Your task to perform on an android device: change the upload size in google photos Image 0: 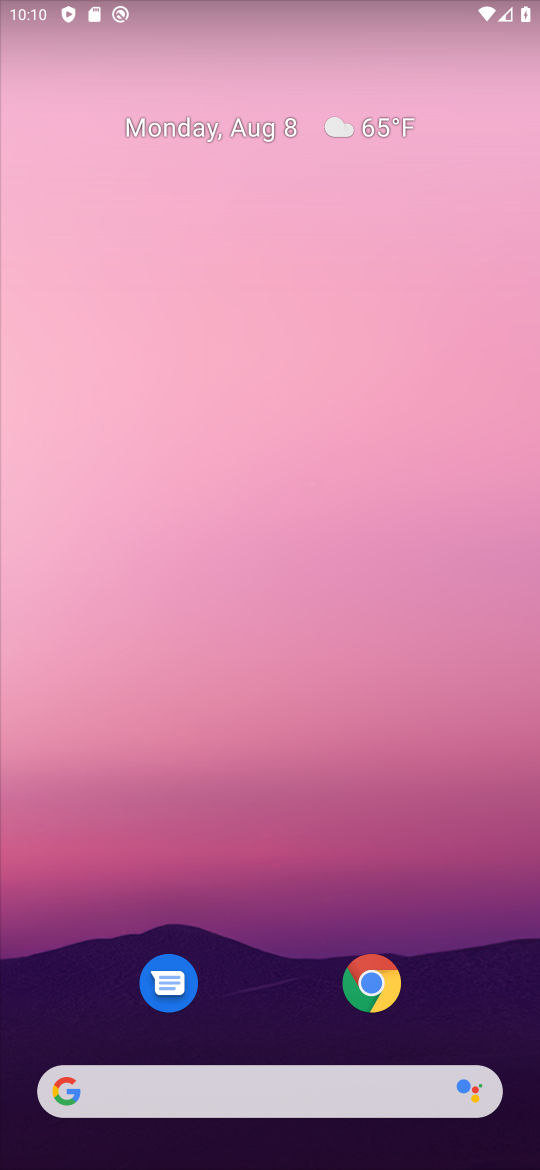
Step 0: drag from (240, 1047) to (270, 82)
Your task to perform on an android device: change the upload size in google photos Image 1: 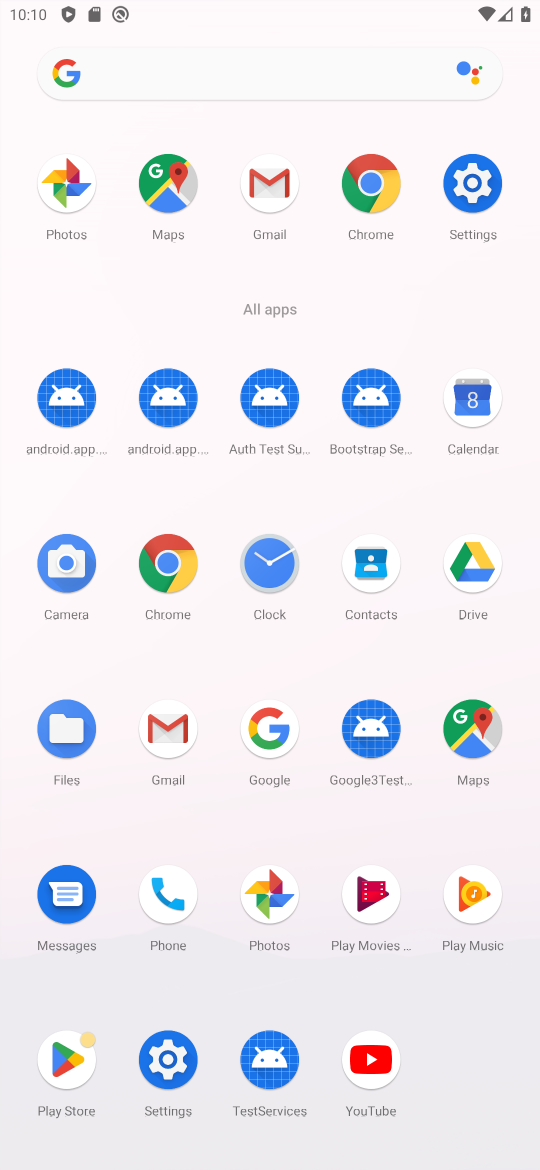
Step 1: click (269, 890)
Your task to perform on an android device: change the upload size in google photos Image 2: 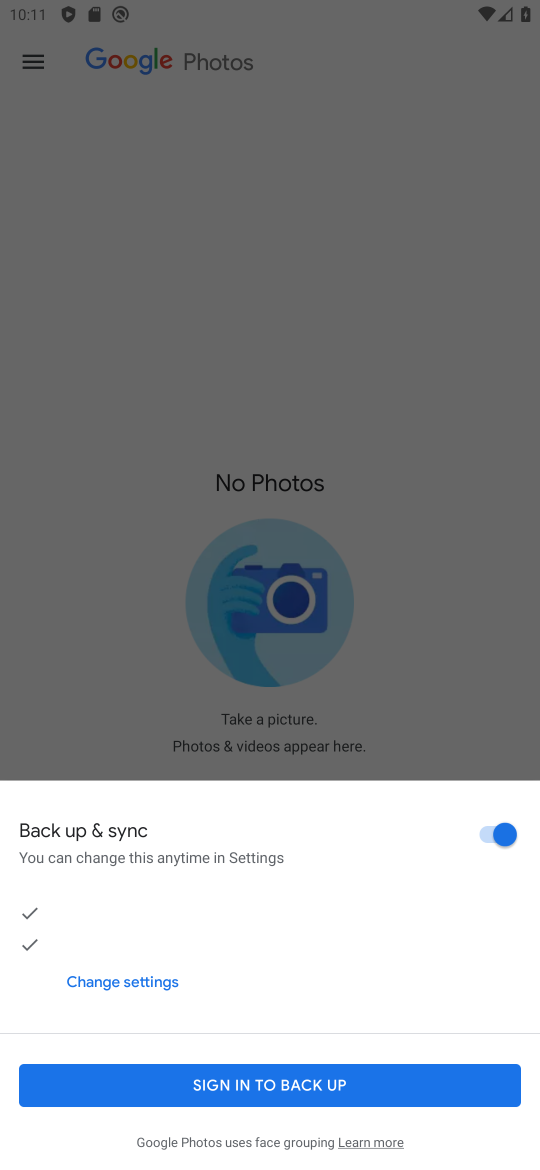
Step 2: click (499, 846)
Your task to perform on an android device: change the upload size in google photos Image 3: 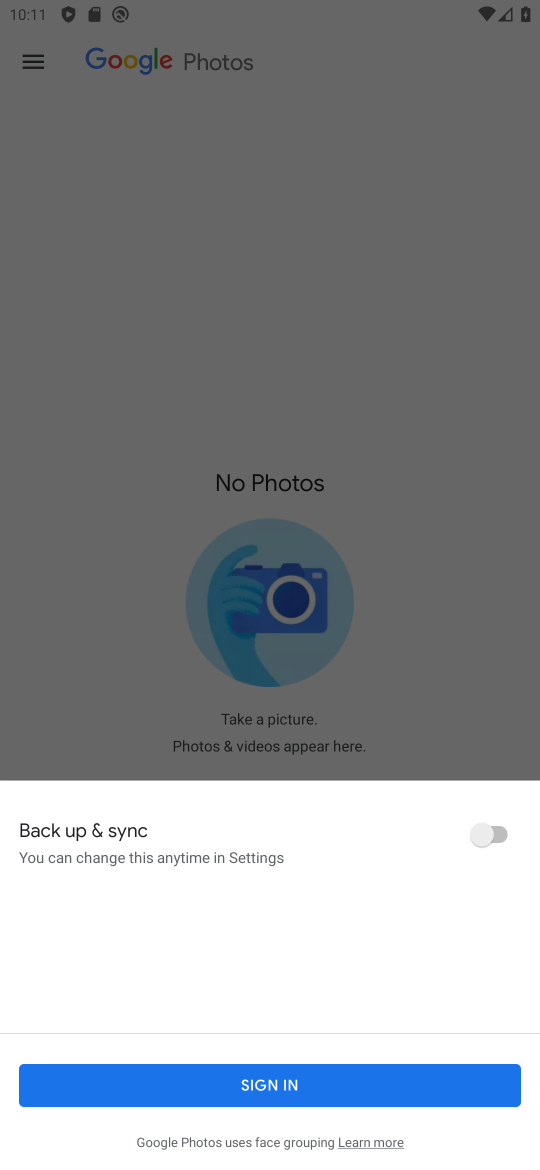
Step 3: click (456, 720)
Your task to perform on an android device: change the upload size in google photos Image 4: 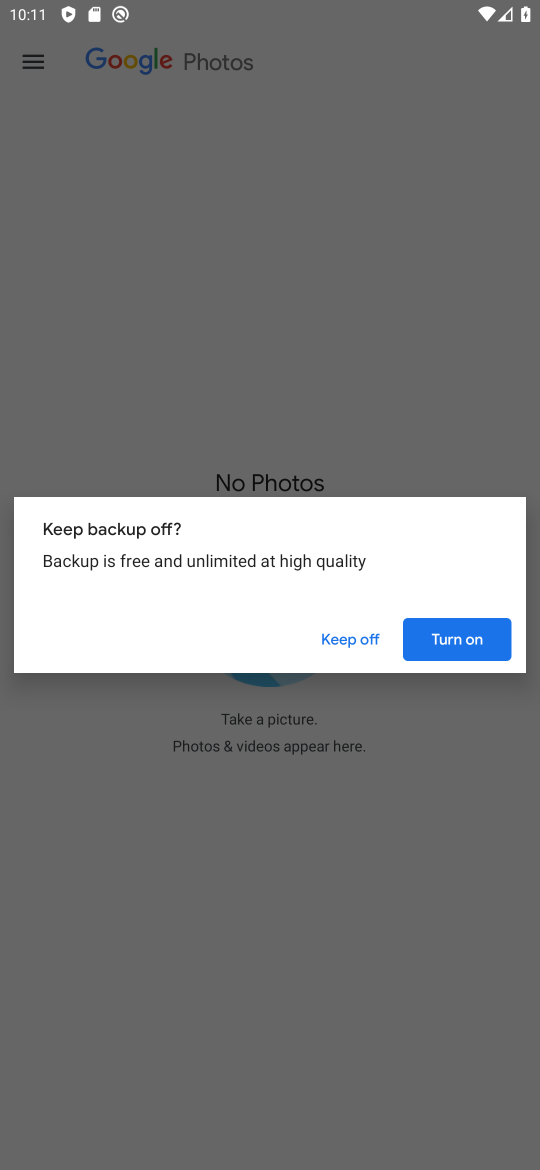
Step 4: click (365, 635)
Your task to perform on an android device: change the upload size in google photos Image 5: 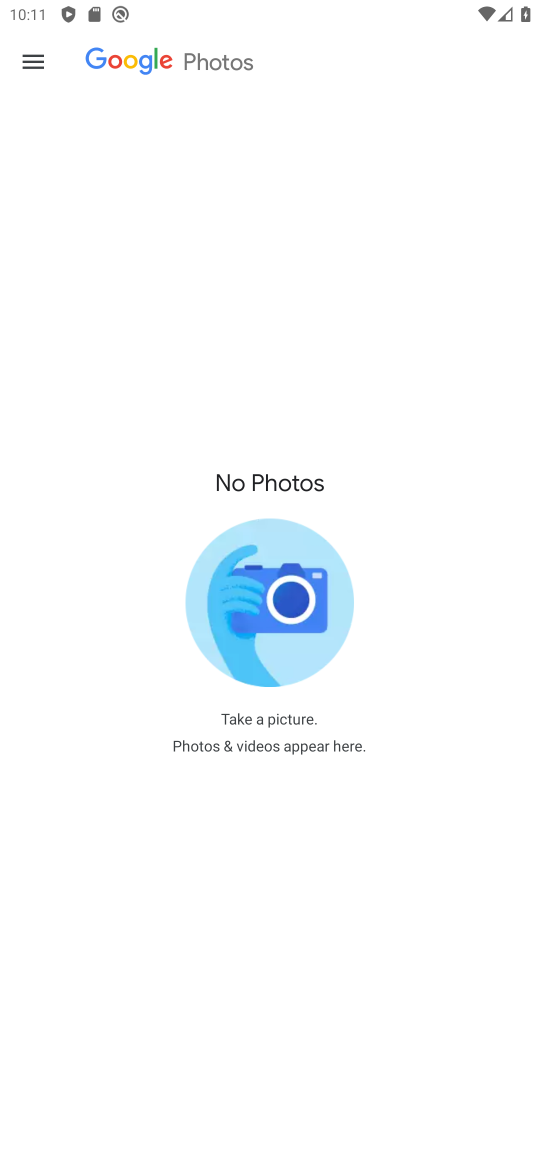
Step 5: click (19, 57)
Your task to perform on an android device: change the upload size in google photos Image 6: 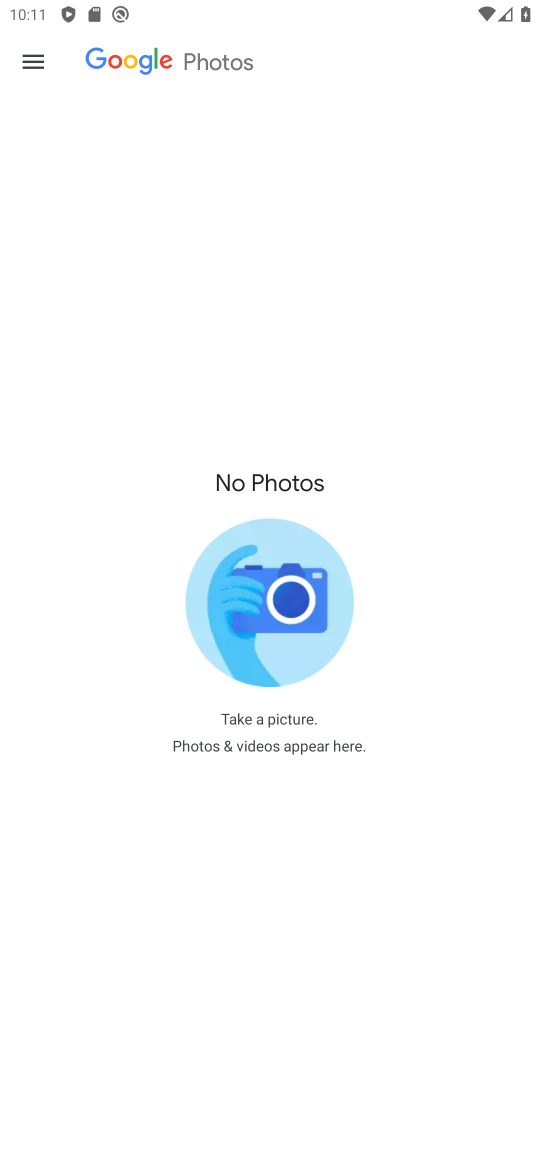
Step 6: click (29, 61)
Your task to perform on an android device: change the upload size in google photos Image 7: 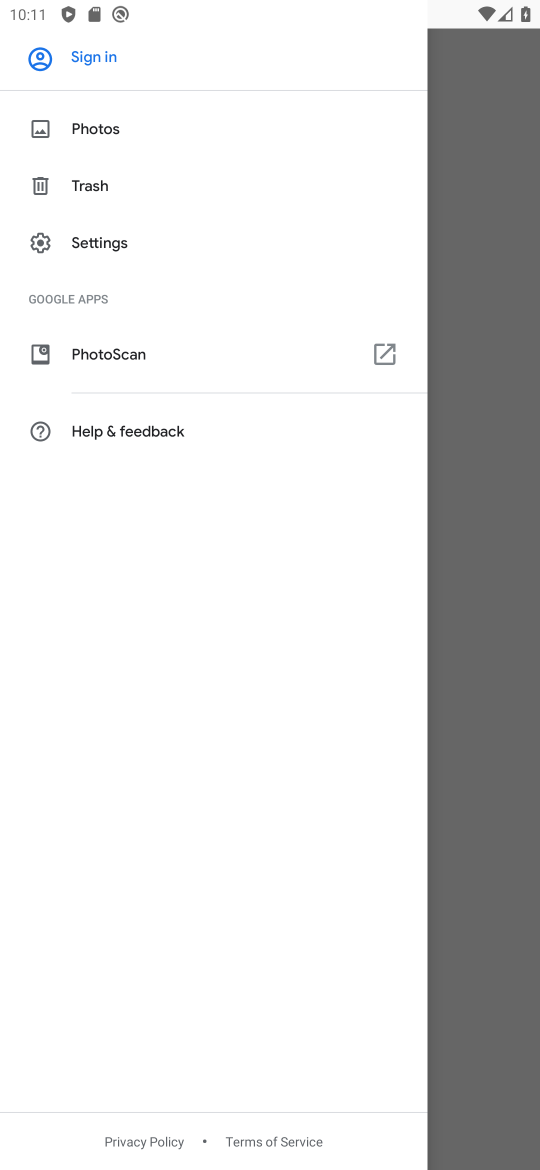
Step 7: click (74, 232)
Your task to perform on an android device: change the upload size in google photos Image 8: 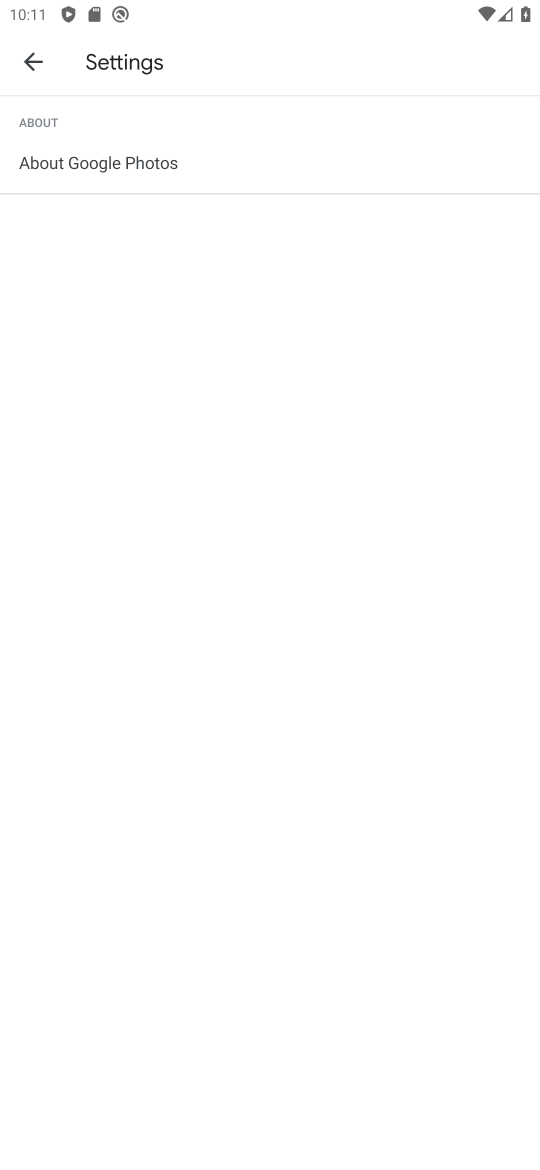
Step 8: task complete